Your task to perform on an android device: open sync settings in chrome Image 0: 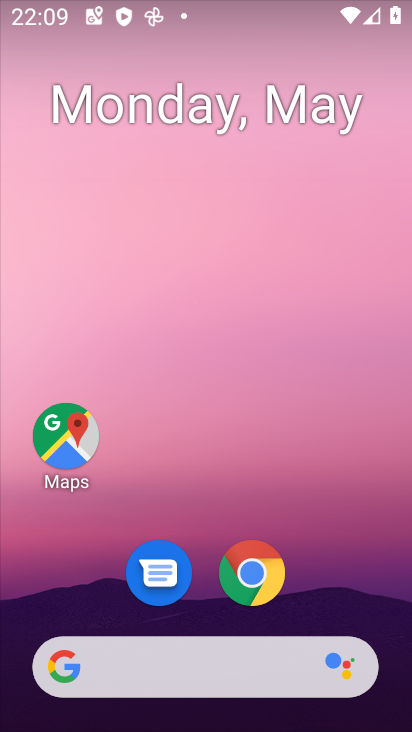
Step 0: click (251, 594)
Your task to perform on an android device: open sync settings in chrome Image 1: 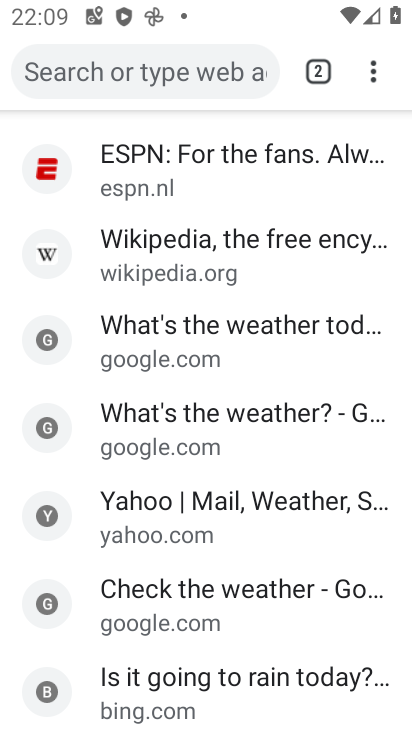
Step 1: task complete